Your task to perform on an android device: empty trash in the gmail app Image 0: 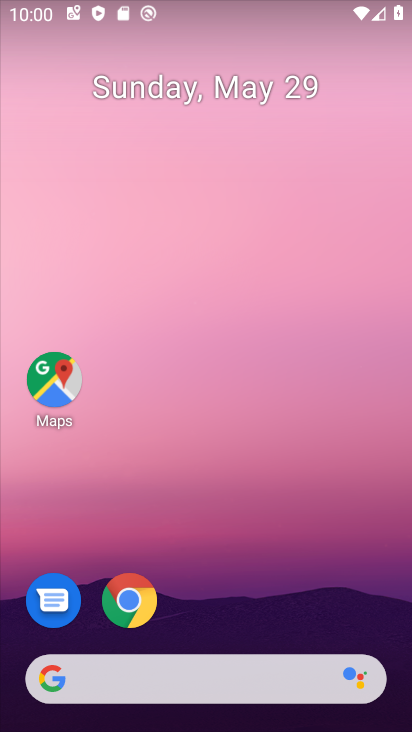
Step 0: drag from (228, 727) to (193, 27)
Your task to perform on an android device: empty trash in the gmail app Image 1: 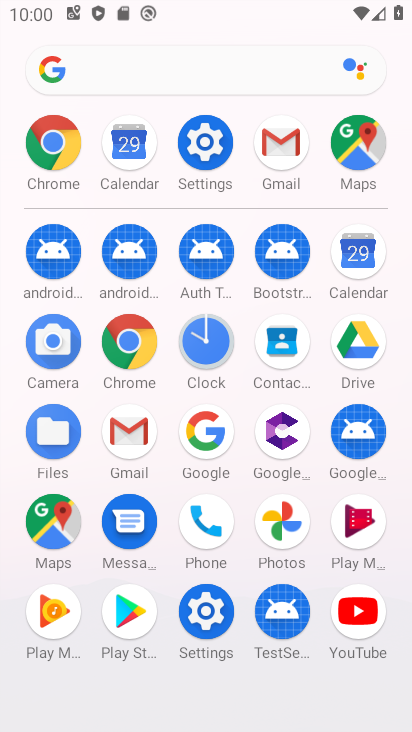
Step 1: click (129, 422)
Your task to perform on an android device: empty trash in the gmail app Image 2: 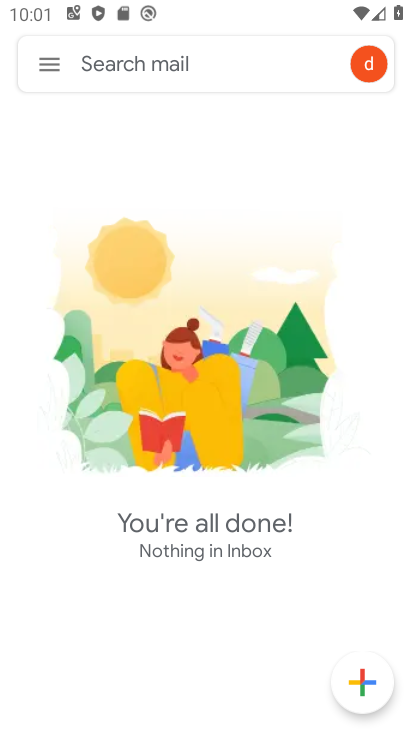
Step 2: click (52, 65)
Your task to perform on an android device: empty trash in the gmail app Image 3: 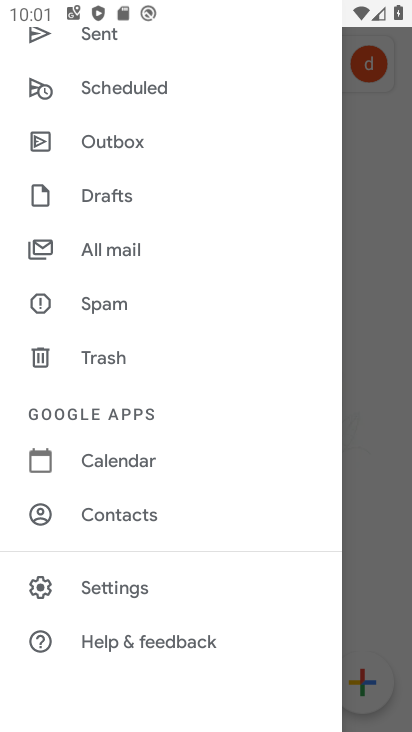
Step 3: click (97, 352)
Your task to perform on an android device: empty trash in the gmail app Image 4: 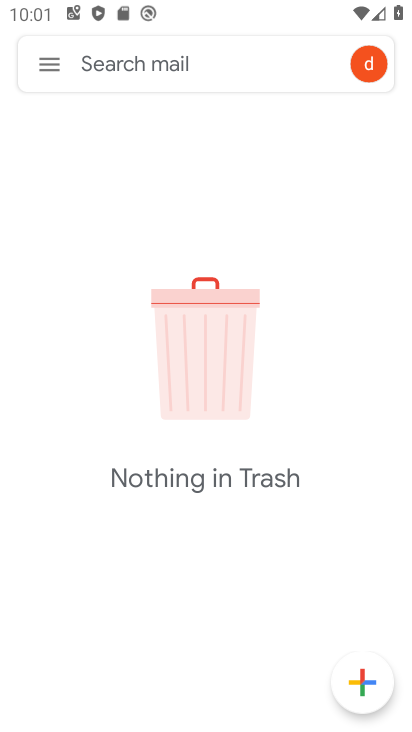
Step 4: task complete